Your task to perform on an android device: turn on javascript in the chrome app Image 0: 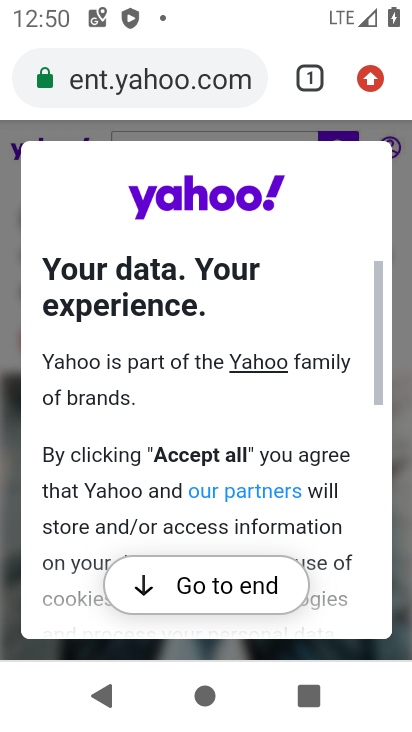
Step 0: press home button
Your task to perform on an android device: turn on javascript in the chrome app Image 1: 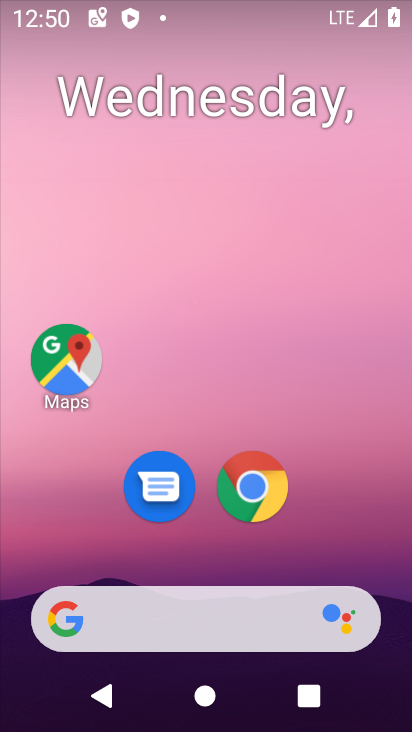
Step 1: drag from (353, 542) to (346, 54)
Your task to perform on an android device: turn on javascript in the chrome app Image 2: 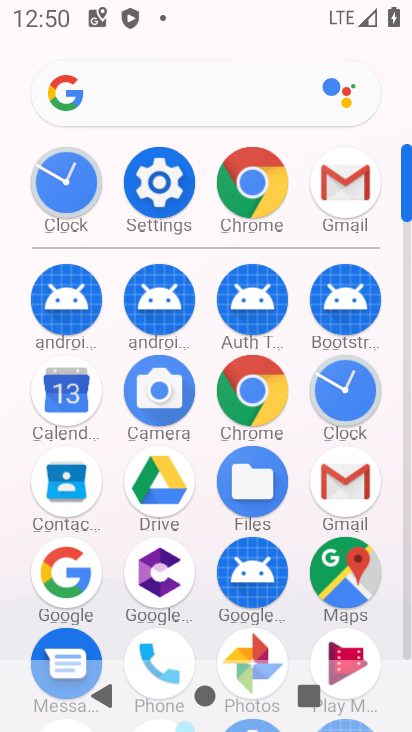
Step 2: click (257, 396)
Your task to perform on an android device: turn on javascript in the chrome app Image 3: 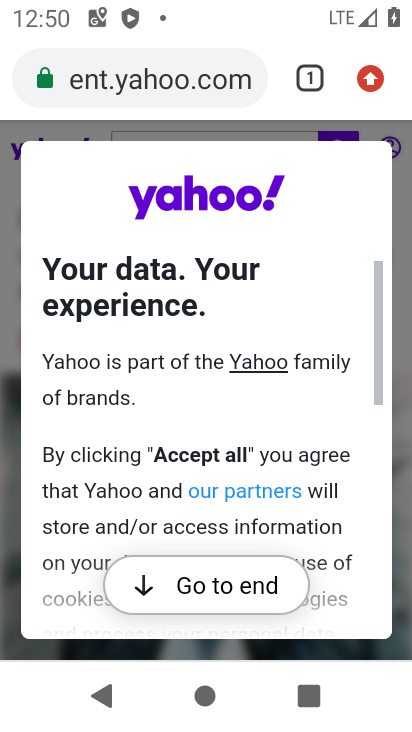
Step 3: click (374, 83)
Your task to perform on an android device: turn on javascript in the chrome app Image 4: 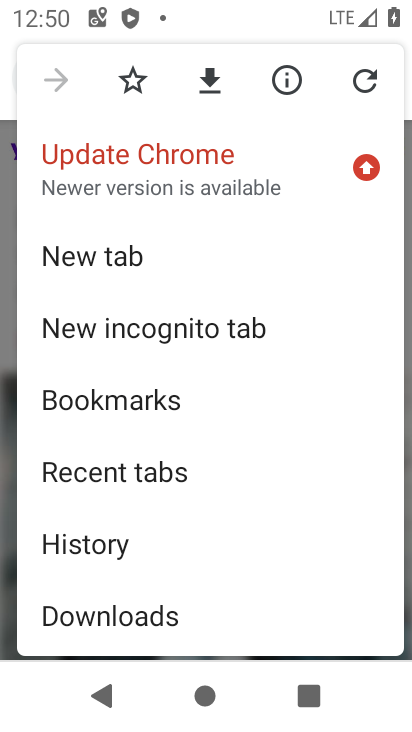
Step 4: drag from (309, 376) to (307, 268)
Your task to perform on an android device: turn on javascript in the chrome app Image 5: 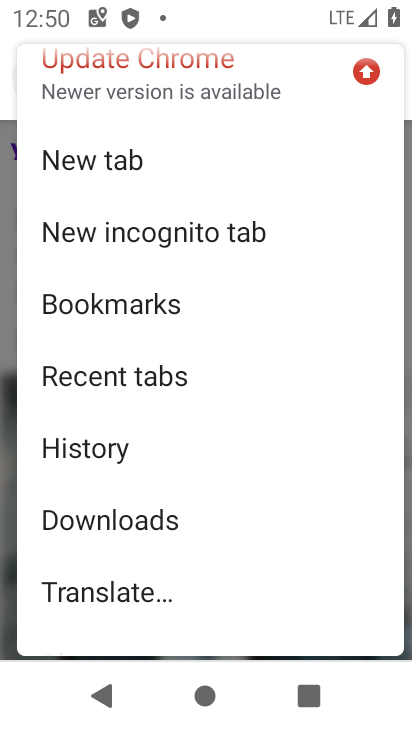
Step 5: drag from (302, 437) to (306, 344)
Your task to perform on an android device: turn on javascript in the chrome app Image 6: 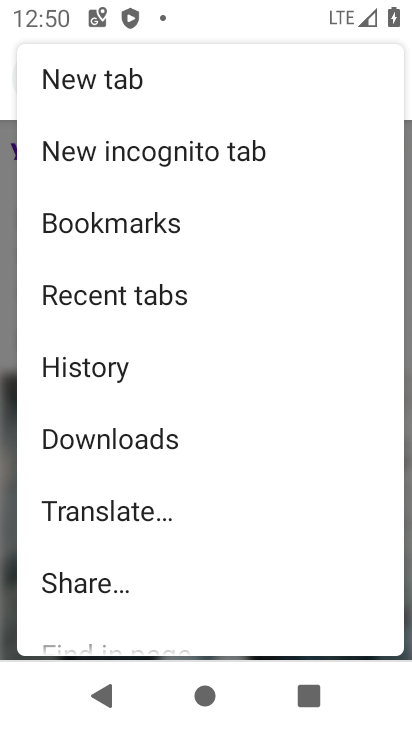
Step 6: drag from (300, 475) to (299, 346)
Your task to perform on an android device: turn on javascript in the chrome app Image 7: 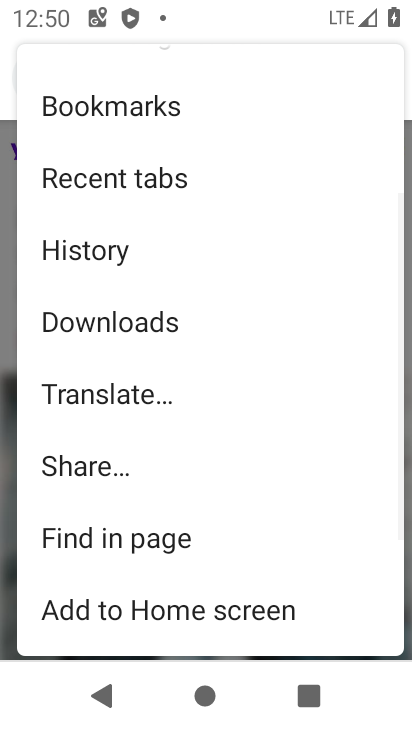
Step 7: drag from (280, 479) to (285, 332)
Your task to perform on an android device: turn on javascript in the chrome app Image 8: 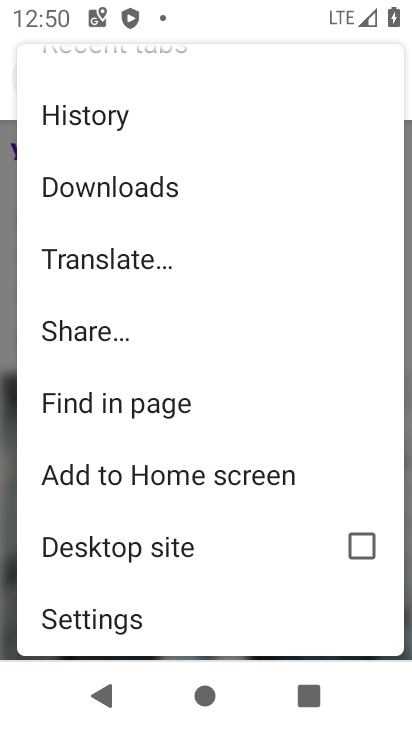
Step 8: drag from (293, 510) to (294, 338)
Your task to perform on an android device: turn on javascript in the chrome app Image 9: 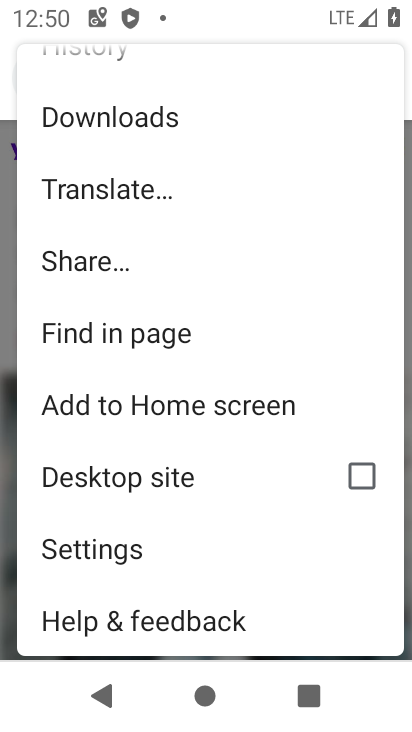
Step 9: click (247, 543)
Your task to perform on an android device: turn on javascript in the chrome app Image 10: 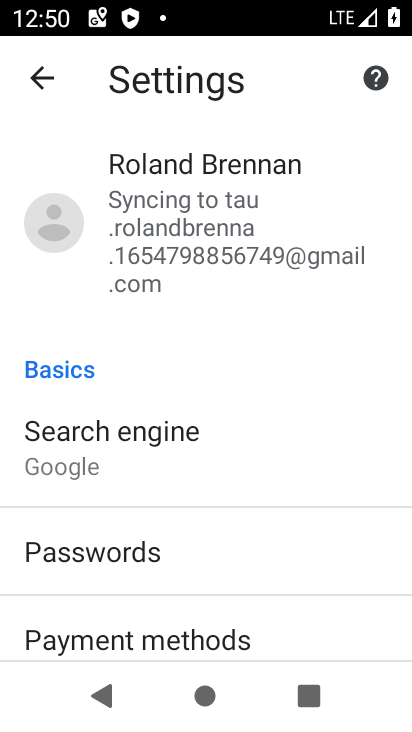
Step 10: drag from (315, 518) to (323, 376)
Your task to perform on an android device: turn on javascript in the chrome app Image 11: 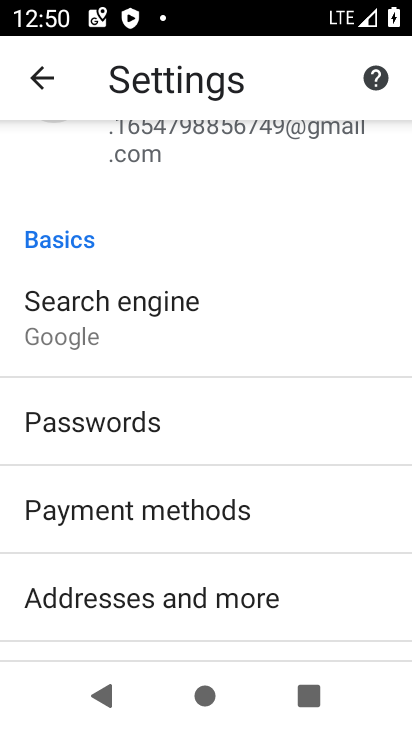
Step 11: drag from (343, 524) to (348, 393)
Your task to perform on an android device: turn on javascript in the chrome app Image 12: 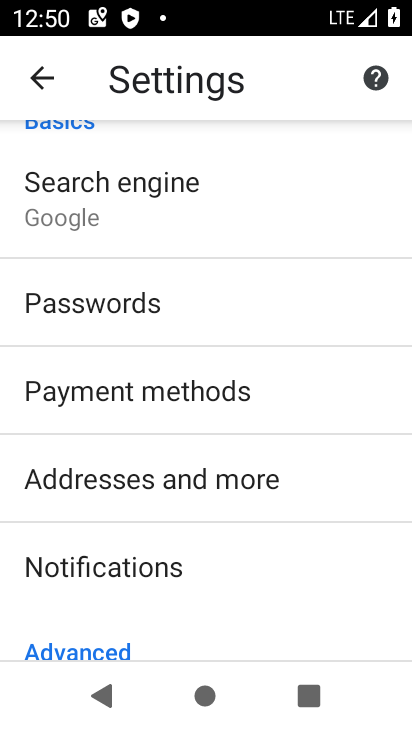
Step 12: drag from (351, 524) to (350, 377)
Your task to perform on an android device: turn on javascript in the chrome app Image 13: 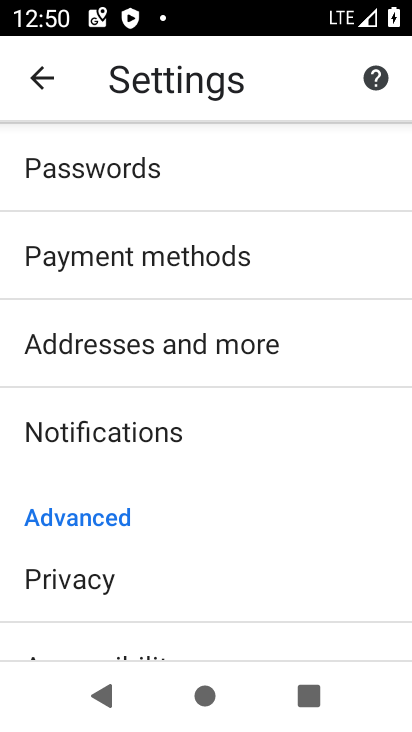
Step 13: drag from (339, 529) to (334, 362)
Your task to perform on an android device: turn on javascript in the chrome app Image 14: 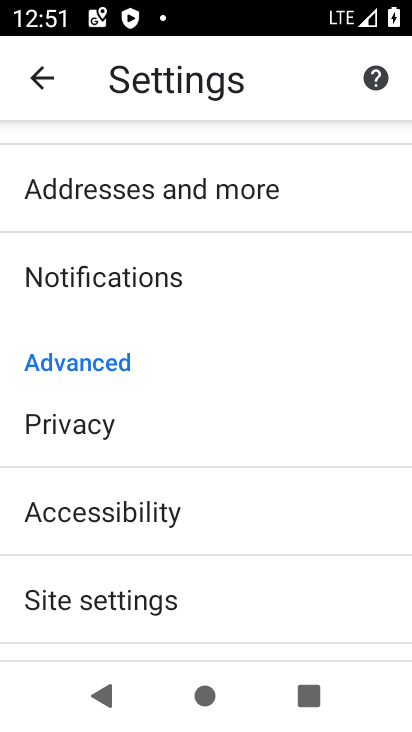
Step 14: drag from (322, 511) to (315, 384)
Your task to perform on an android device: turn on javascript in the chrome app Image 15: 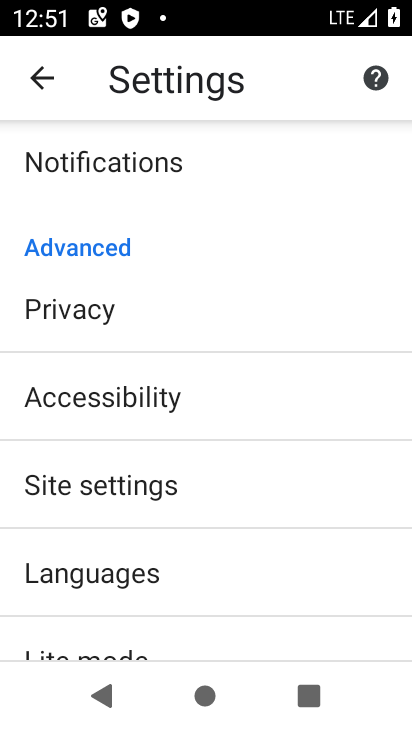
Step 15: drag from (310, 576) to (297, 434)
Your task to perform on an android device: turn on javascript in the chrome app Image 16: 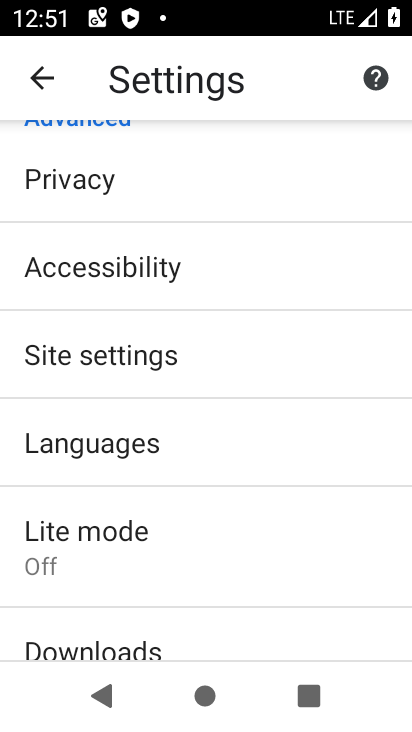
Step 16: click (295, 367)
Your task to perform on an android device: turn on javascript in the chrome app Image 17: 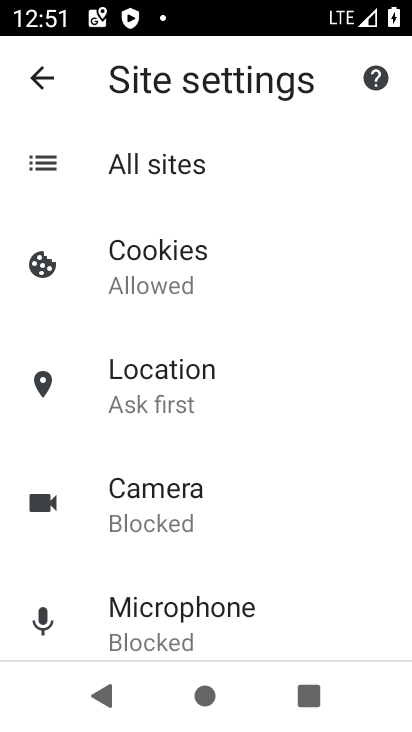
Step 17: drag from (342, 475) to (351, 345)
Your task to perform on an android device: turn on javascript in the chrome app Image 18: 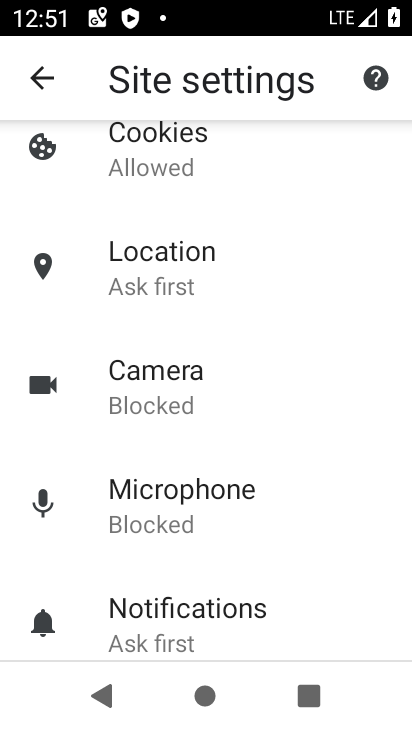
Step 18: drag from (347, 454) to (338, 294)
Your task to perform on an android device: turn on javascript in the chrome app Image 19: 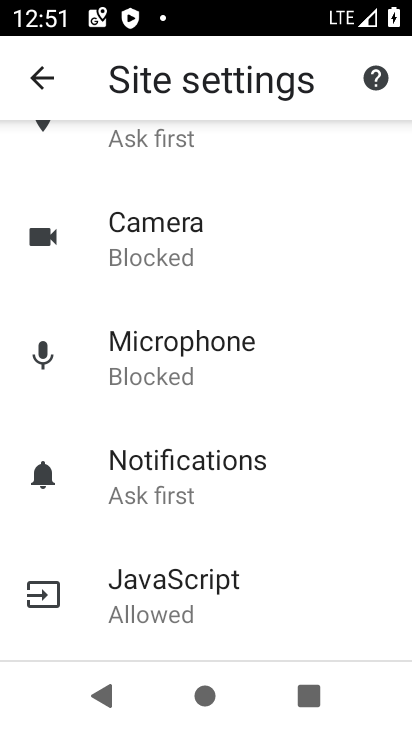
Step 19: drag from (314, 466) to (312, 293)
Your task to perform on an android device: turn on javascript in the chrome app Image 20: 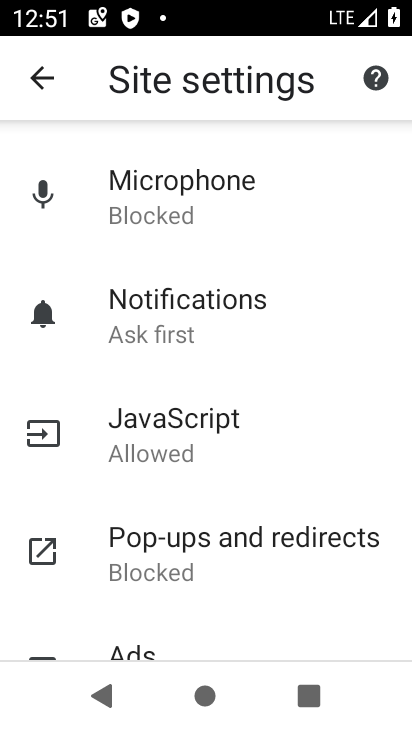
Step 20: drag from (331, 433) to (339, 282)
Your task to perform on an android device: turn on javascript in the chrome app Image 21: 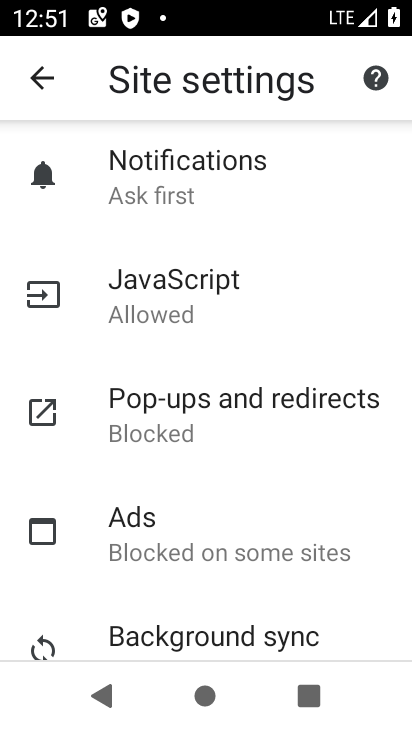
Step 21: click (271, 312)
Your task to perform on an android device: turn on javascript in the chrome app Image 22: 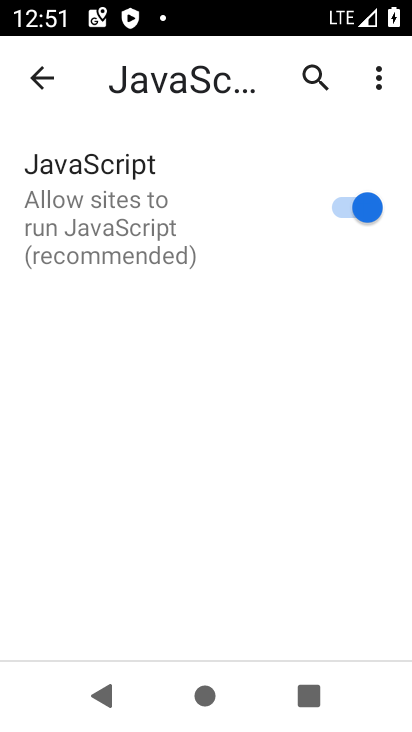
Step 22: task complete